Your task to perform on an android device: Search for pizza restaurants on Maps Image 0: 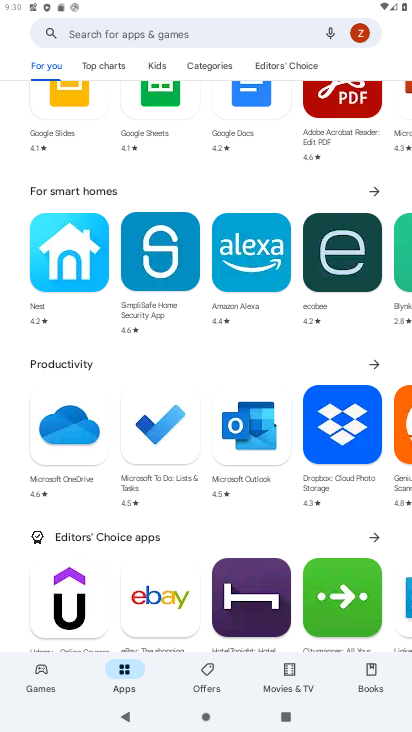
Step 0: press home button
Your task to perform on an android device: Search for pizza restaurants on Maps Image 1: 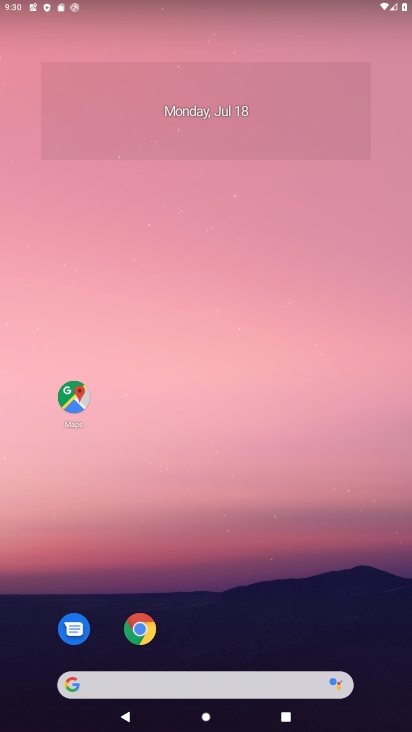
Step 1: drag from (261, 638) to (227, 75)
Your task to perform on an android device: Search for pizza restaurants on Maps Image 2: 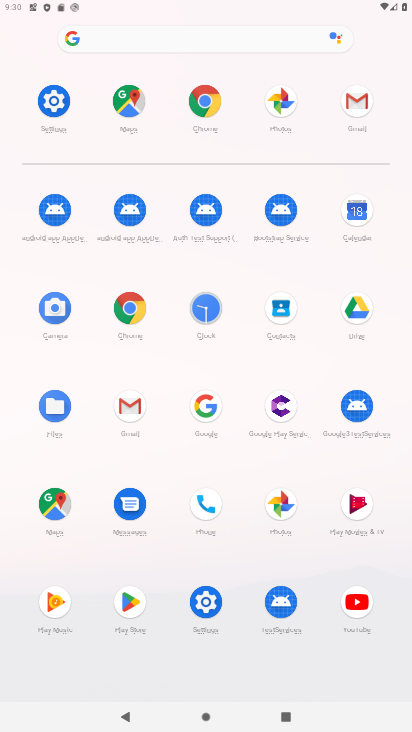
Step 2: click (51, 511)
Your task to perform on an android device: Search for pizza restaurants on Maps Image 3: 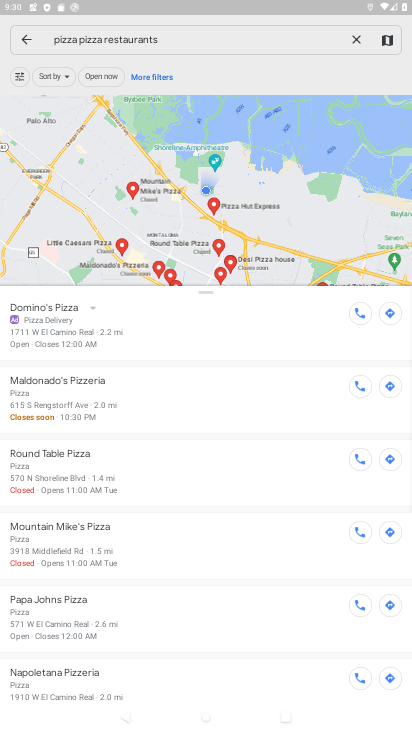
Step 3: click (121, 38)
Your task to perform on an android device: Search for pizza restaurants on Maps Image 4: 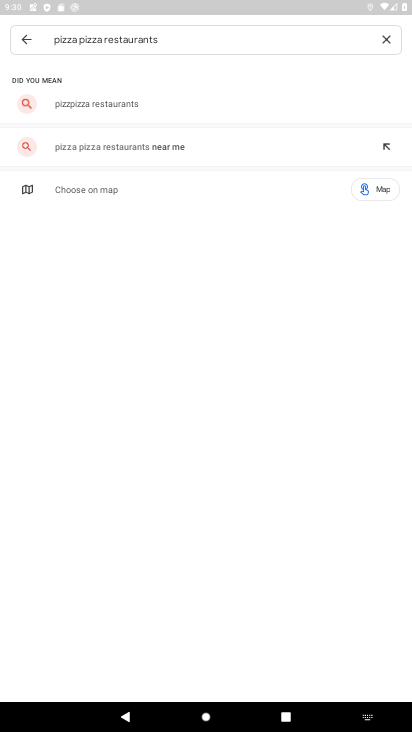
Step 4: click (390, 42)
Your task to perform on an android device: Search for pizza restaurants on Maps Image 5: 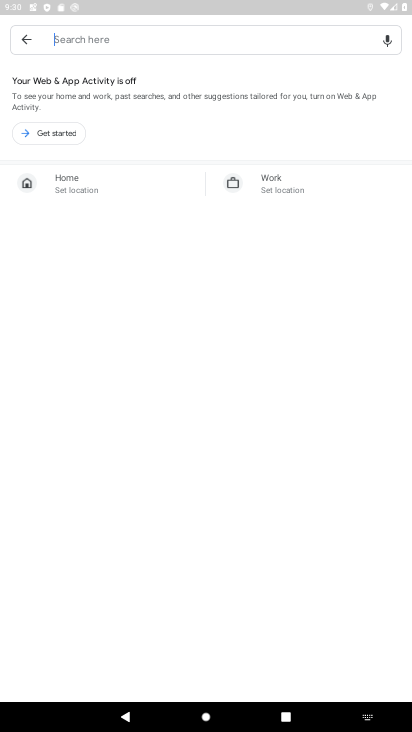
Step 5: type "pizza restaurants"
Your task to perform on an android device: Search for pizza restaurants on Maps Image 6: 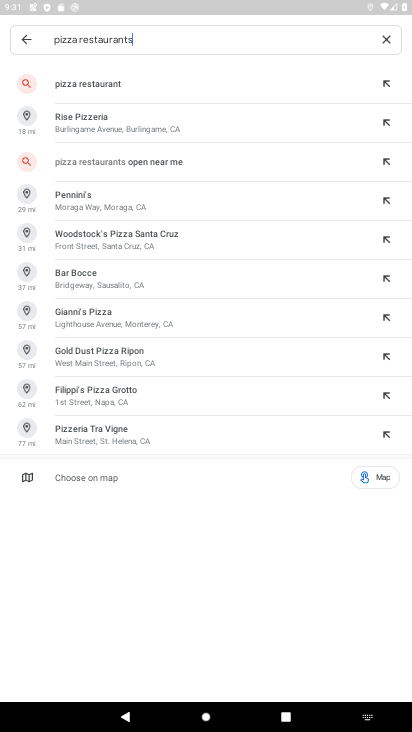
Step 6: press enter
Your task to perform on an android device: Search for pizza restaurants on Maps Image 7: 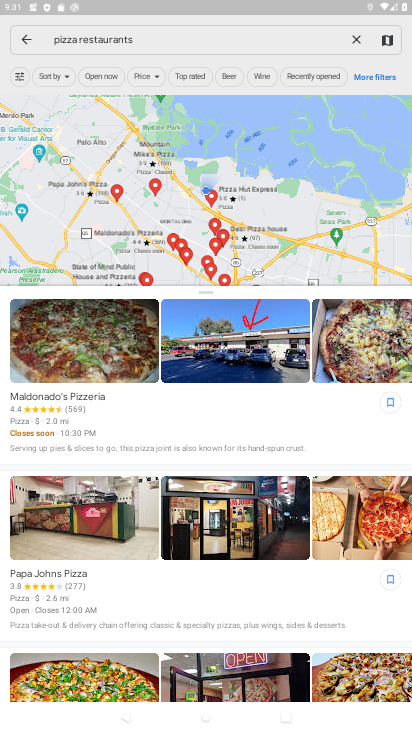
Step 7: task complete